Your task to perform on an android device: open app "Google Find My Device" (install if not already installed) Image 0: 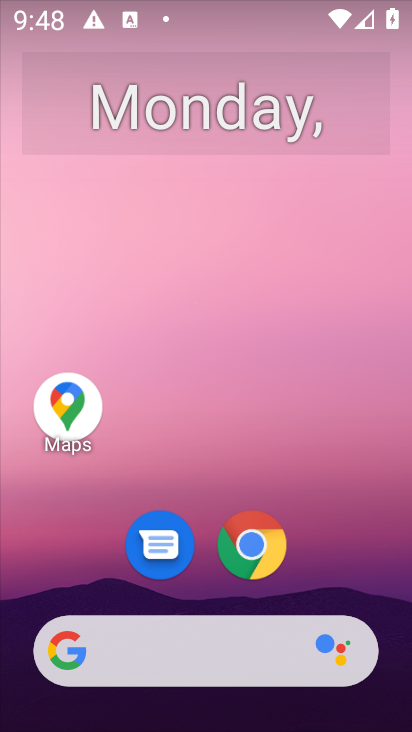
Step 0: drag from (375, 564) to (362, 89)
Your task to perform on an android device: open app "Google Find My Device" (install if not already installed) Image 1: 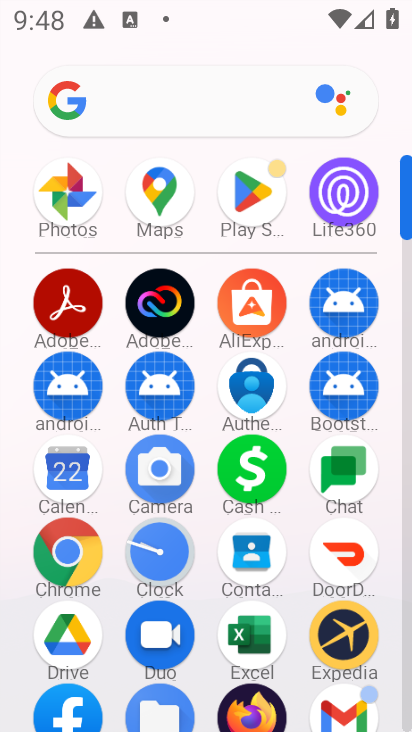
Step 1: click (250, 194)
Your task to perform on an android device: open app "Google Find My Device" (install if not already installed) Image 2: 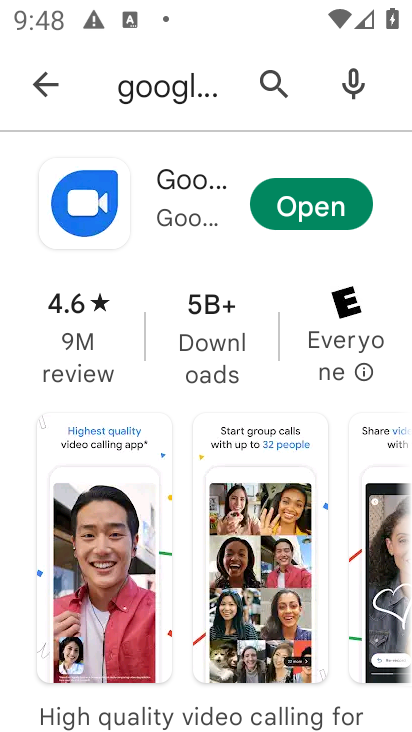
Step 2: press back button
Your task to perform on an android device: open app "Google Find My Device" (install if not already installed) Image 3: 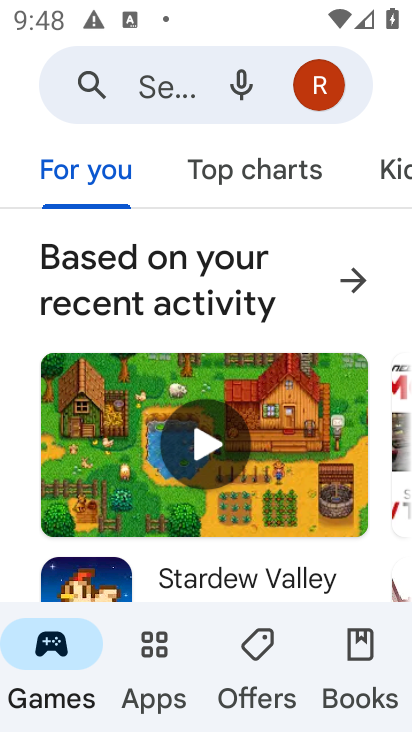
Step 3: click (152, 83)
Your task to perform on an android device: open app "Google Find My Device" (install if not already installed) Image 4: 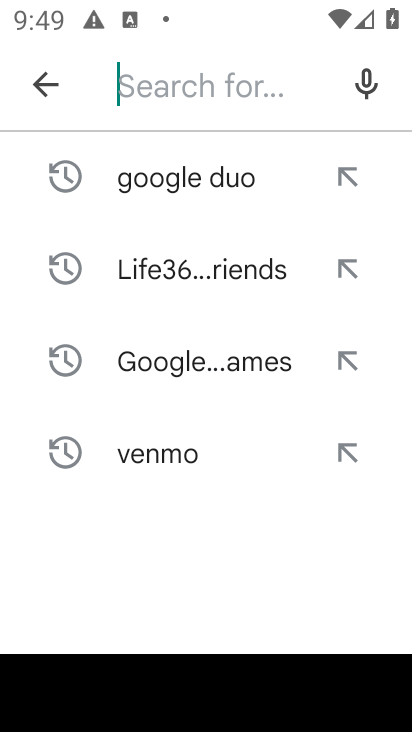
Step 4: type "Google Find My Device"
Your task to perform on an android device: open app "Google Find My Device" (install if not already installed) Image 5: 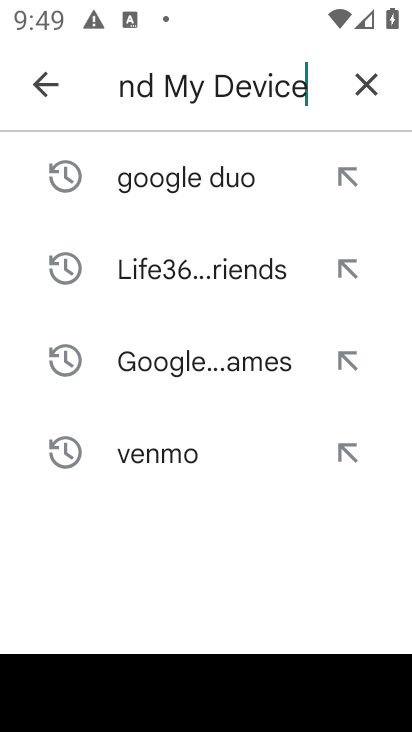
Step 5: press enter
Your task to perform on an android device: open app "Google Find My Device" (install if not already installed) Image 6: 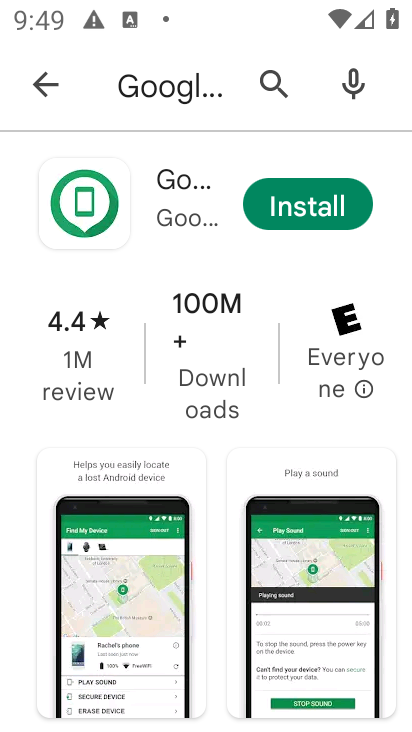
Step 6: click (293, 212)
Your task to perform on an android device: open app "Google Find My Device" (install if not already installed) Image 7: 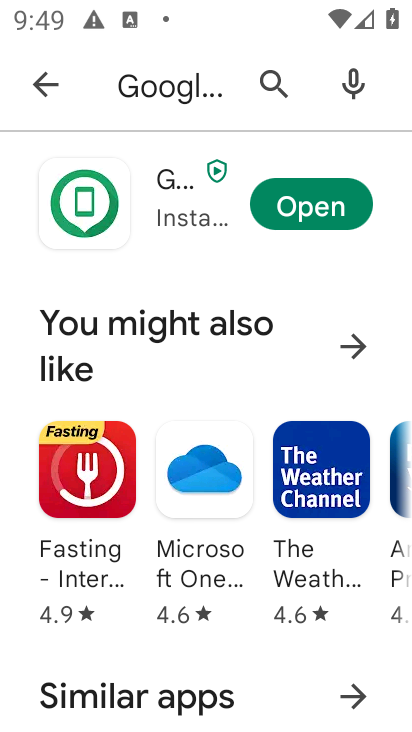
Step 7: click (324, 203)
Your task to perform on an android device: open app "Google Find My Device" (install if not already installed) Image 8: 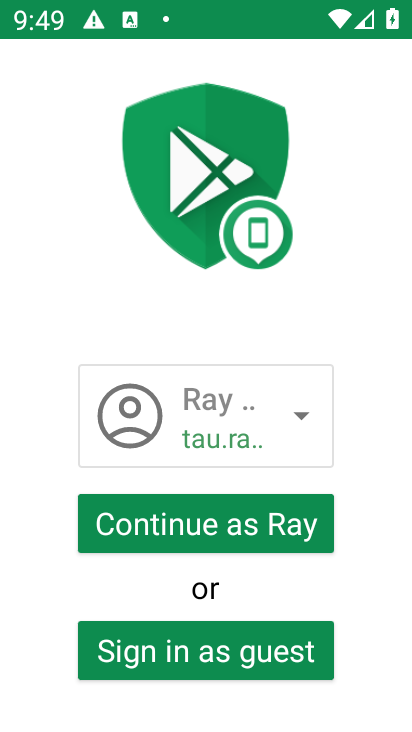
Step 8: task complete